Your task to perform on an android device: toggle sleep mode Image 0: 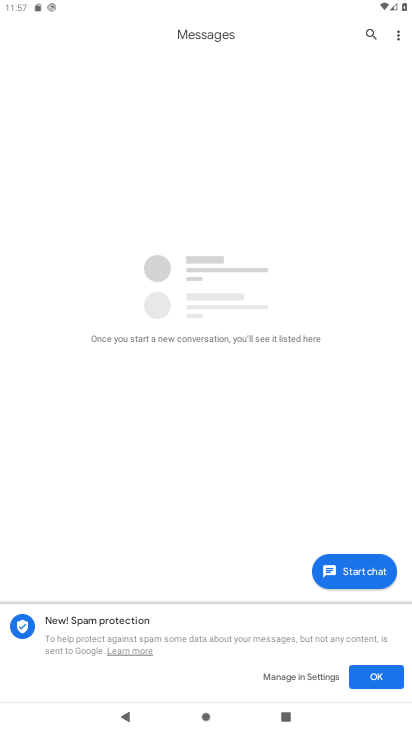
Step 0: press home button
Your task to perform on an android device: toggle sleep mode Image 1: 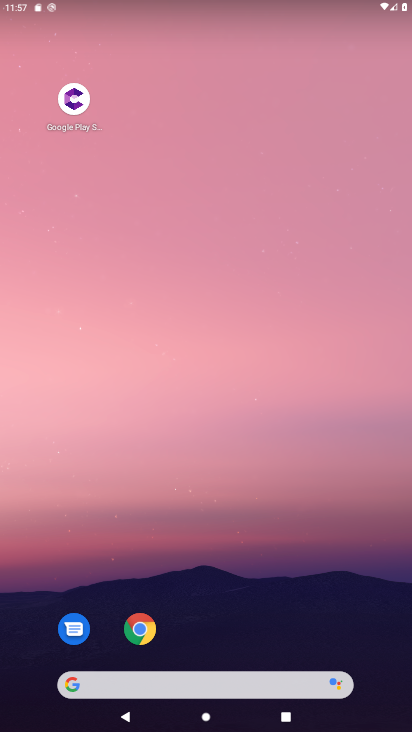
Step 1: drag from (379, 623) to (319, 416)
Your task to perform on an android device: toggle sleep mode Image 2: 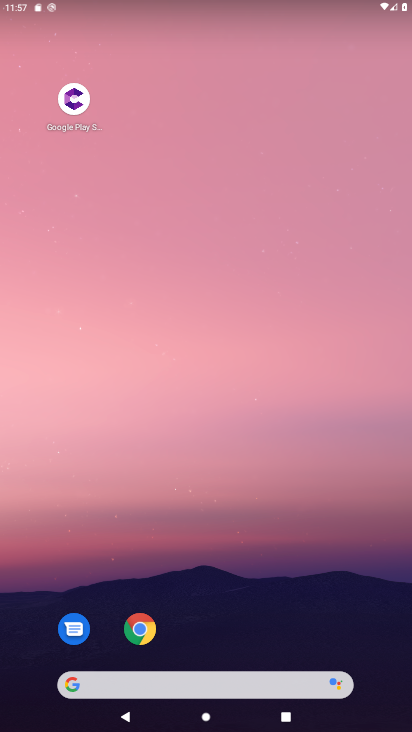
Step 2: drag from (383, 635) to (307, 340)
Your task to perform on an android device: toggle sleep mode Image 3: 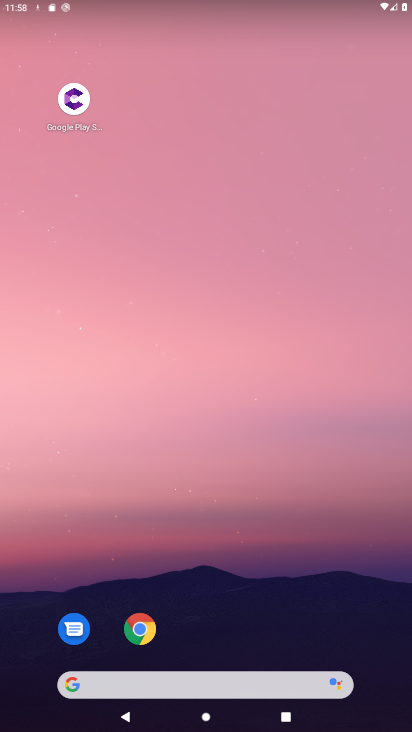
Step 3: drag from (347, 629) to (255, 3)
Your task to perform on an android device: toggle sleep mode Image 4: 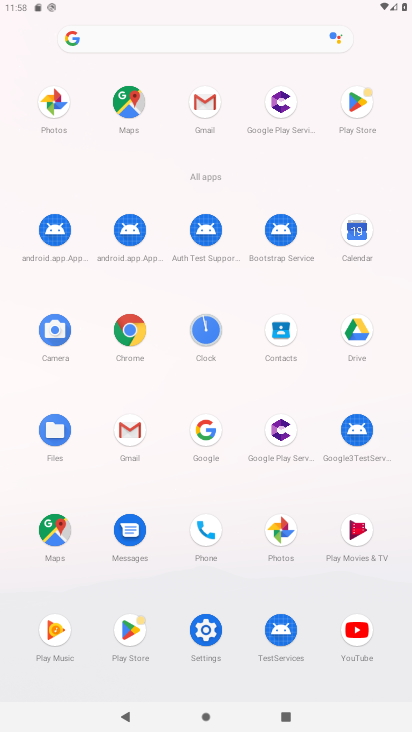
Step 4: click (206, 631)
Your task to perform on an android device: toggle sleep mode Image 5: 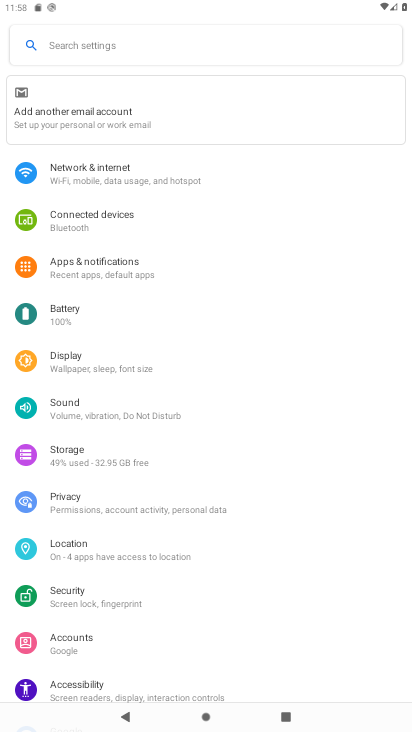
Step 5: click (120, 369)
Your task to perform on an android device: toggle sleep mode Image 6: 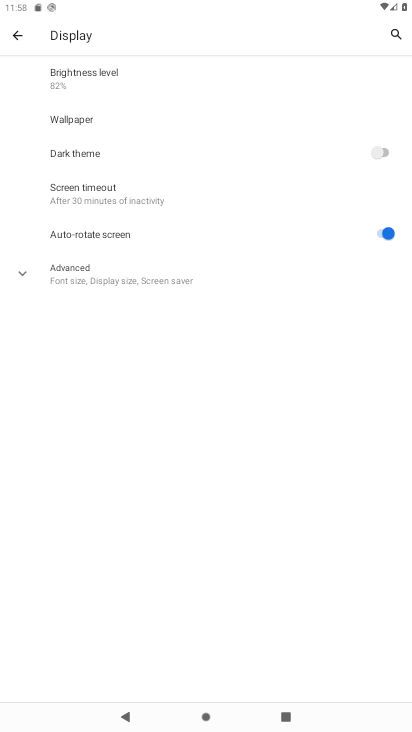
Step 6: click (140, 283)
Your task to perform on an android device: toggle sleep mode Image 7: 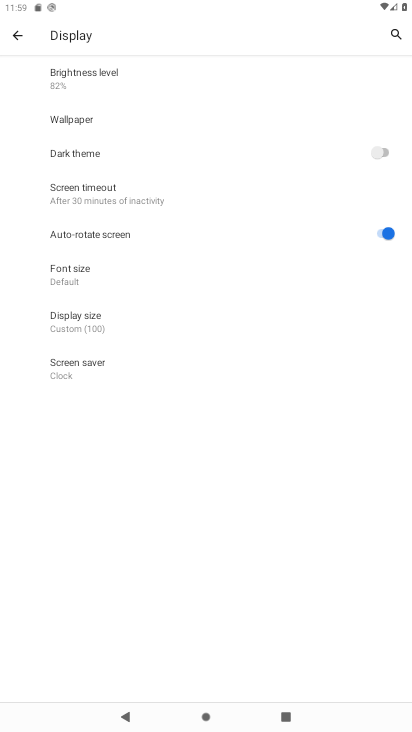
Step 7: click (122, 317)
Your task to perform on an android device: toggle sleep mode Image 8: 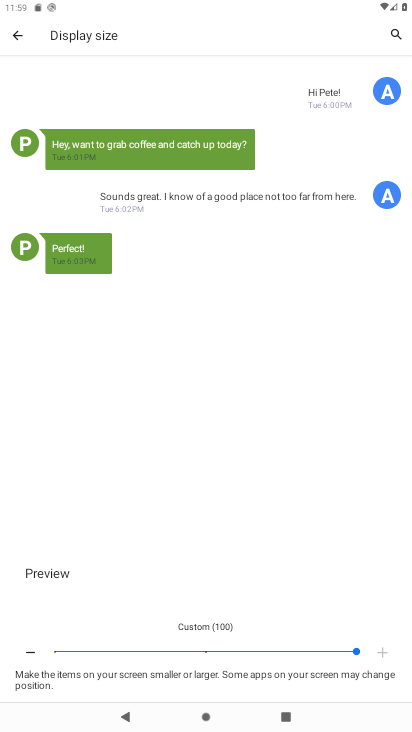
Step 8: click (20, 37)
Your task to perform on an android device: toggle sleep mode Image 9: 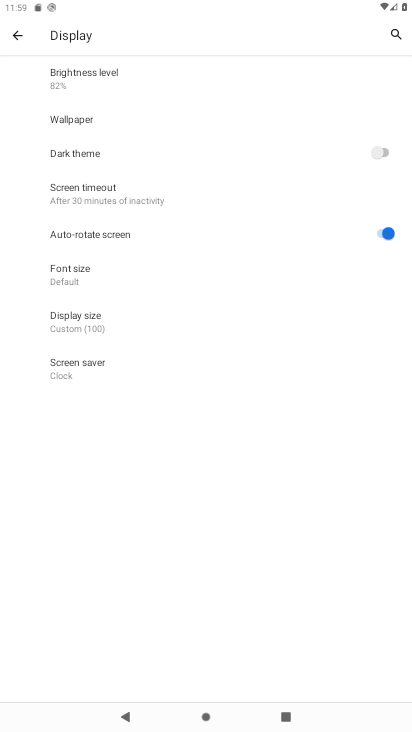
Step 9: task complete